Your task to perform on an android device: toggle translation in the chrome app Image 0: 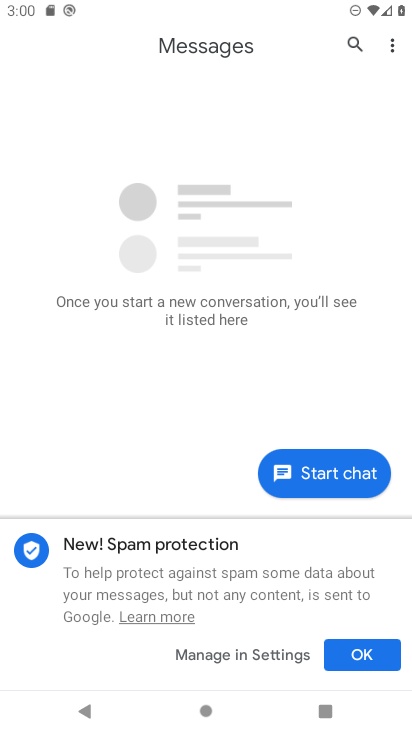
Step 0: press home button
Your task to perform on an android device: toggle translation in the chrome app Image 1: 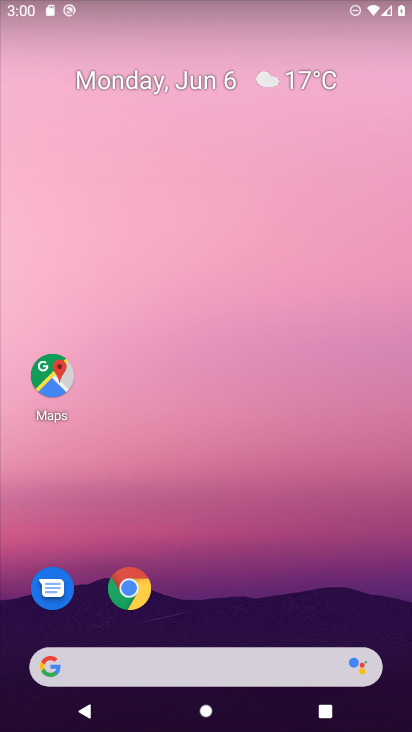
Step 1: click (124, 599)
Your task to perform on an android device: toggle translation in the chrome app Image 2: 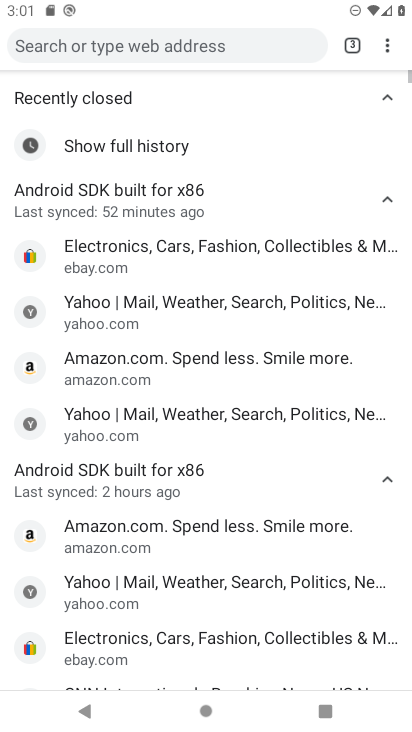
Step 2: click (386, 44)
Your task to perform on an android device: toggle translation in the chrome app Image 3: 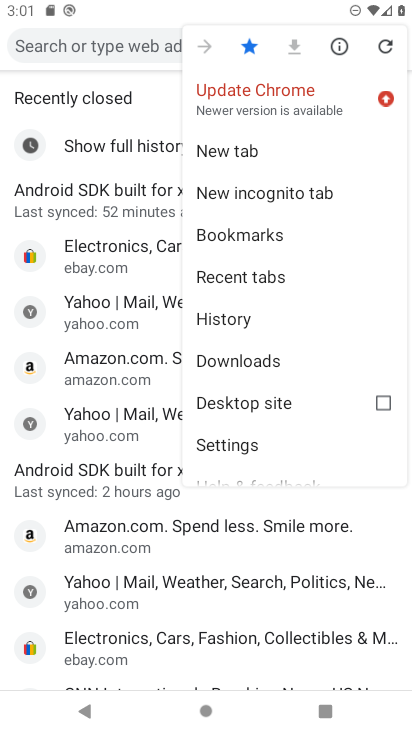
Step 3: click (250, 441)
Your task to perform on an android device: toggle translation in the chrome app Image 4: 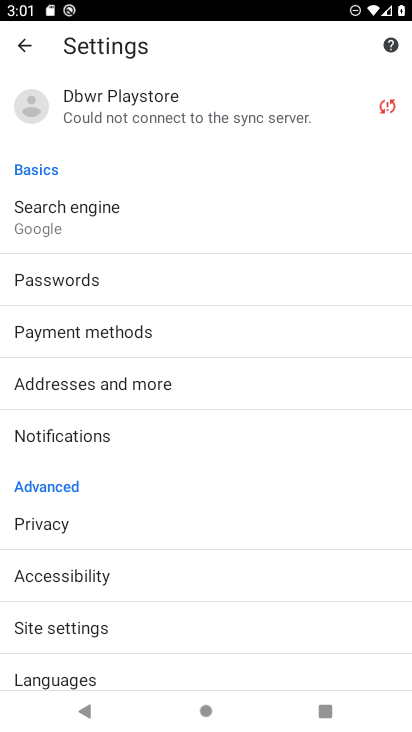
Step 4: click (153, 678)
Your task to perform on an android device: toggle translation in the chrome app Image 5: 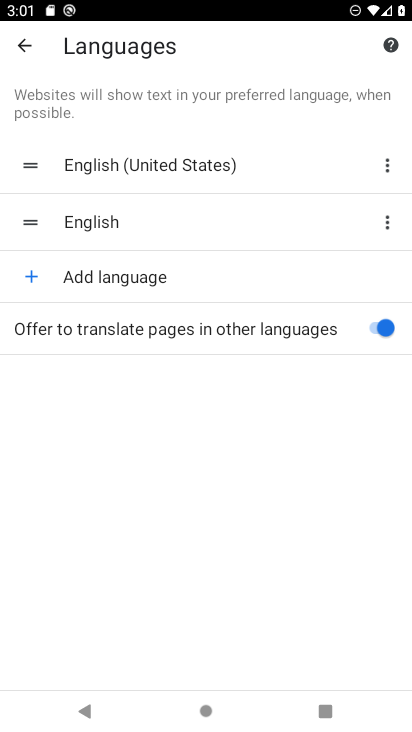
Step 5: click (380, 325)
Your task to perform on an android device: toggle translation in the chrome app Image 6: 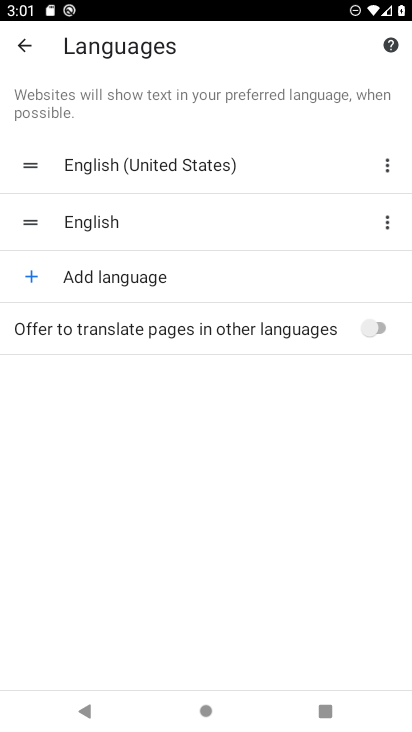
Step 6: task complete